Your task to perform on an android device: What's on my calendar tomorrow? Image 0: 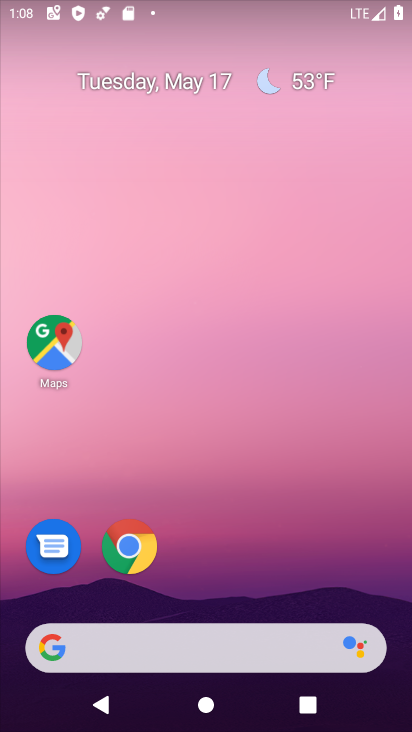
Step 0: drag from (225, 596) to (227, 449)
Your task to perform on an android device: What's on my calendar tomorrow? Image 1: 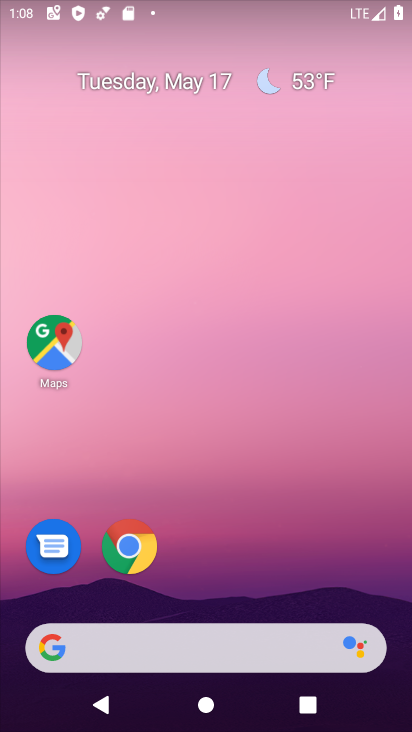
Step 1: drag from (239, 593) to (240, 84)
Your task to perform on an android device: What's on my calendar tomorrow? Image 2: 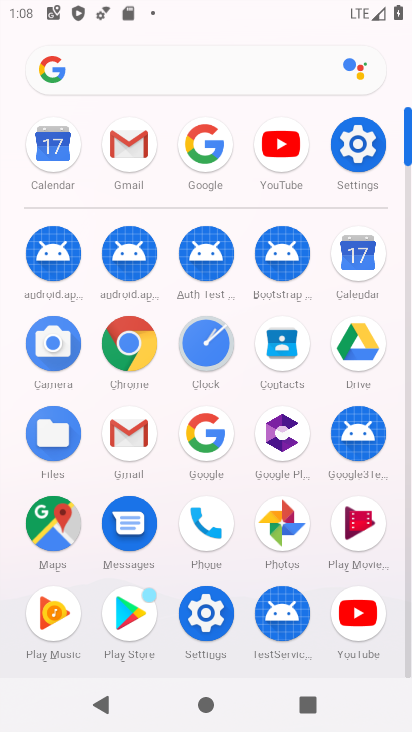
Step 2: click (348, 159)
Your task to perform on an android device: What's on my calendar tomorrow? Image 3: 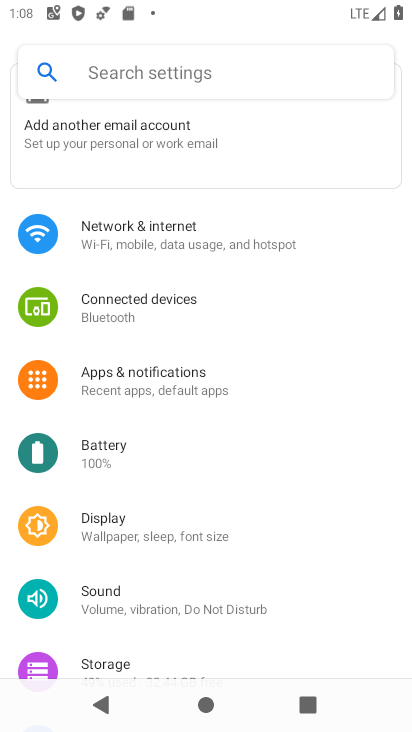
Step 3: press home button
Your task to perform on an android device: What's on my calendar tomorrow? Image 4: 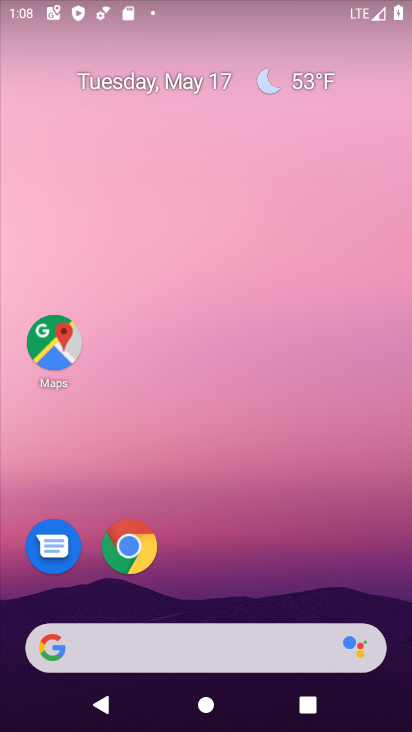
Step 4: drag from (237, 589) to (214, 280)
Your task to perform on an android device: What's on my calendar tomorrow? Image 5: 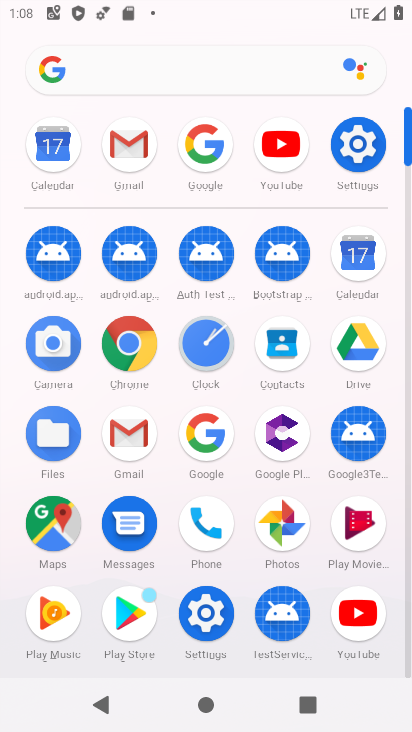
Step 5: click (359, 255)
Your task to perform on an android device: What's on my calendar tomorrow? Image 6: 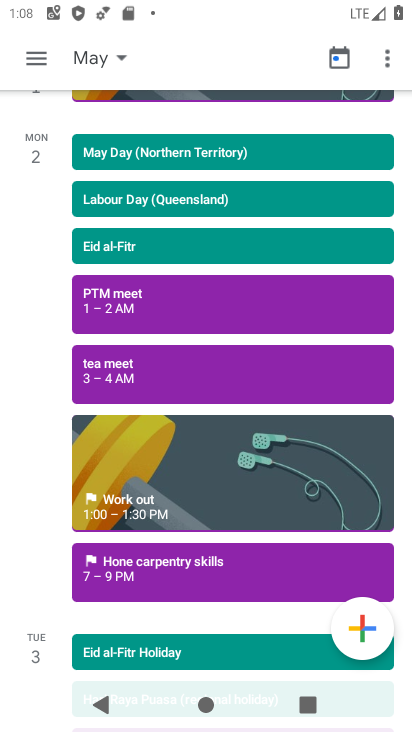
Step 6: click (114, 49)
Your task to perform on an android device: What's on my calendar tomorrow? Image 7: 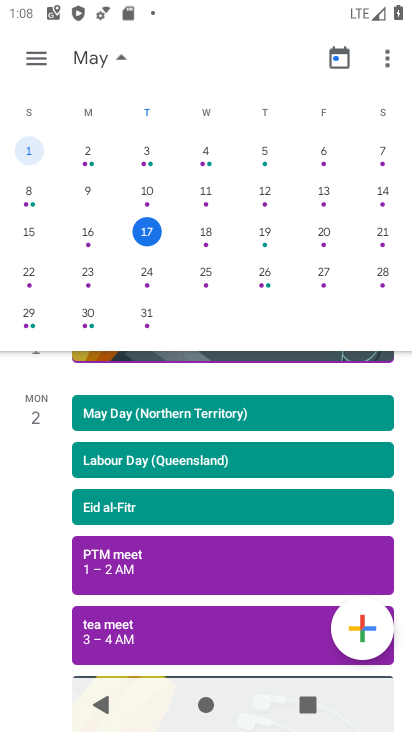
Step 7: click (208, 228)
Your task to perform on an android device: What's on my calendar tomorrow? Image 8: 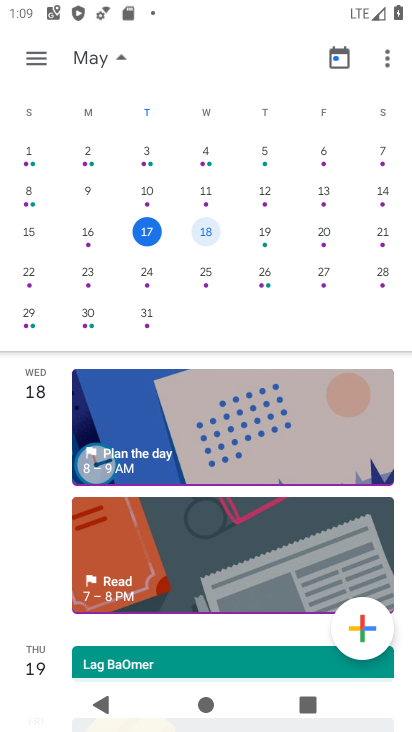
Step 8: task complete